Your task to perform on an android device: Show me productivity apps on the Play Store Image 0: 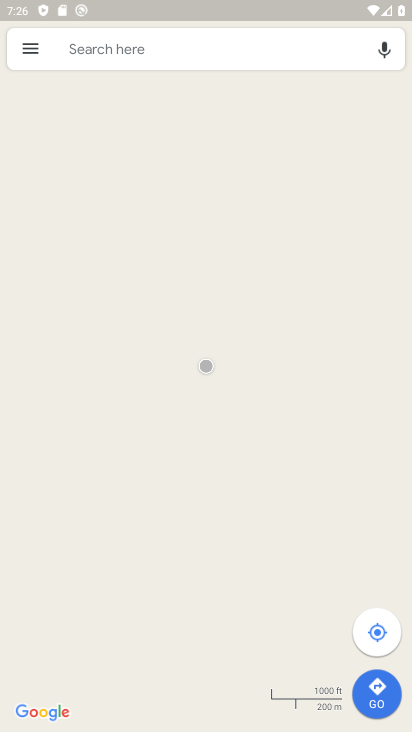
Step 0: press home button
Your task to perform on an android device: Show me productivity apps on the Play Store Image 1: 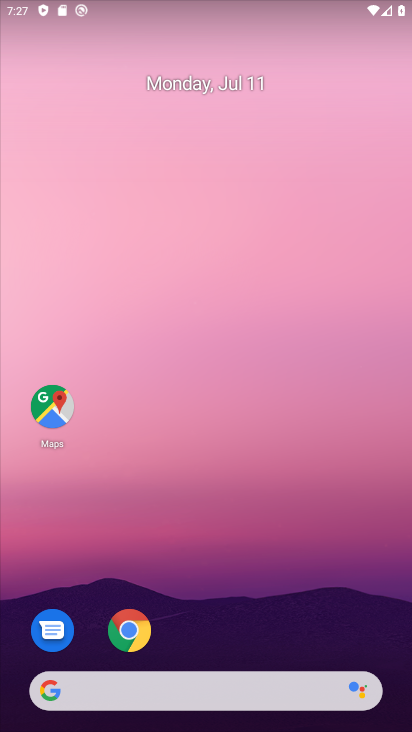
Step 1: drag from (186, 684) to (317, 390)
Your task to perform on an android device: Show me productivity apps on the Play Store Image 2: 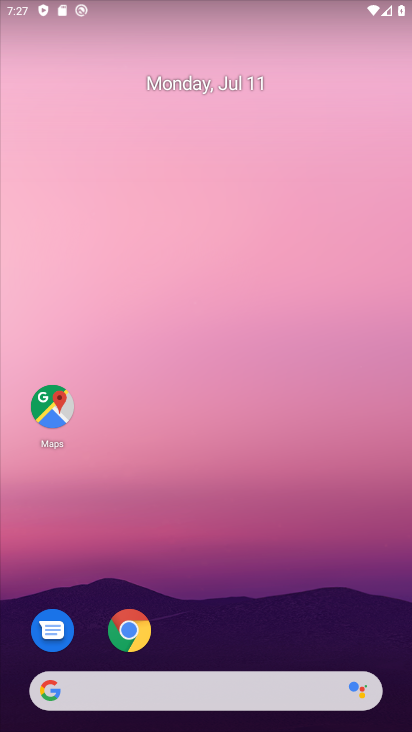
Step 2: drag from (149, 686) to (248, 276)
Your task to perform on an android device: Show me productivity apps on the Play Store Image 3: 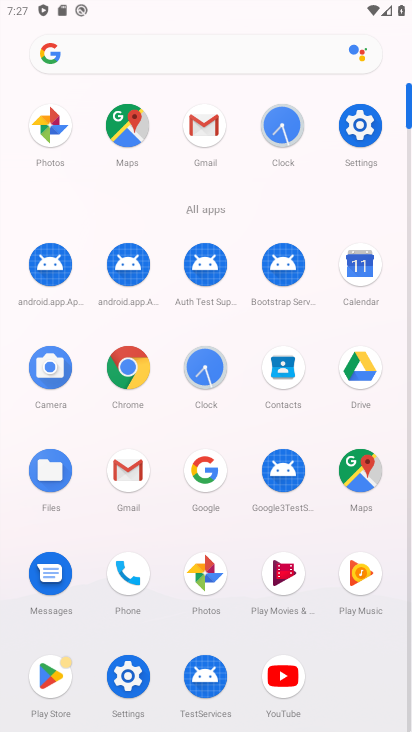
Step 3: click (58, 672)
Your task to perform on an android device: Show me productivity apps on the Play Store Image 4: 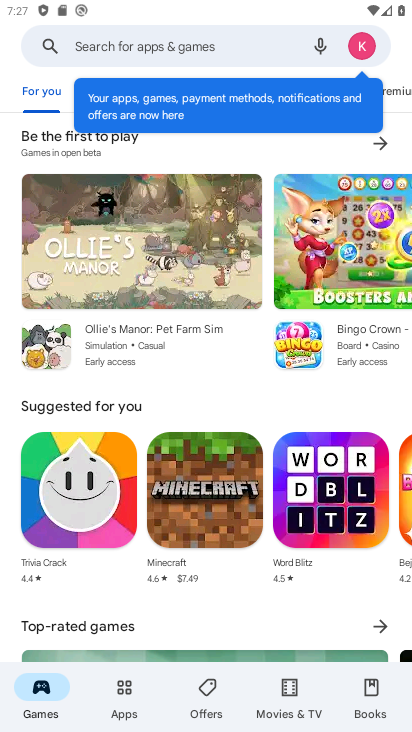
Step 4: click (119, 690)
Your task to perform on an android device: Show me productivity apps on the Play Store Image 5: 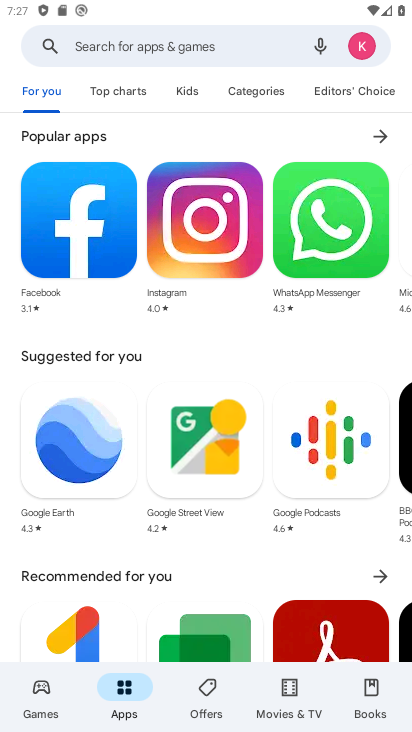
Step 5: click (262, 90)
Your task to perform on an android device: Show me productivity apps on the Play Store Image 6: 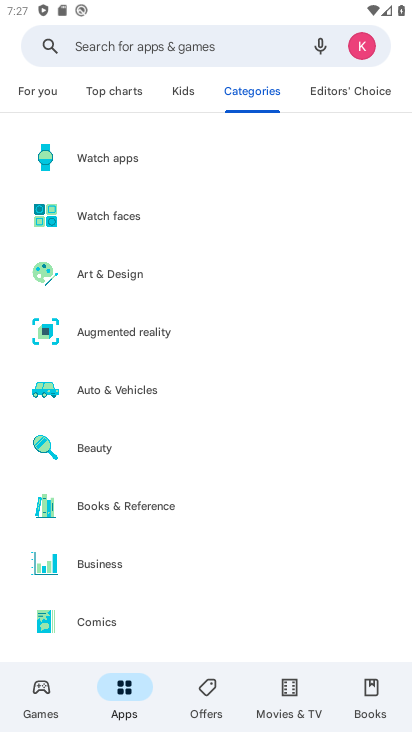
Step 6: drag from (202, 550) to (287, 120)
Your task to perform on an android device: Show me productivity apps on the Play Store Image 7: 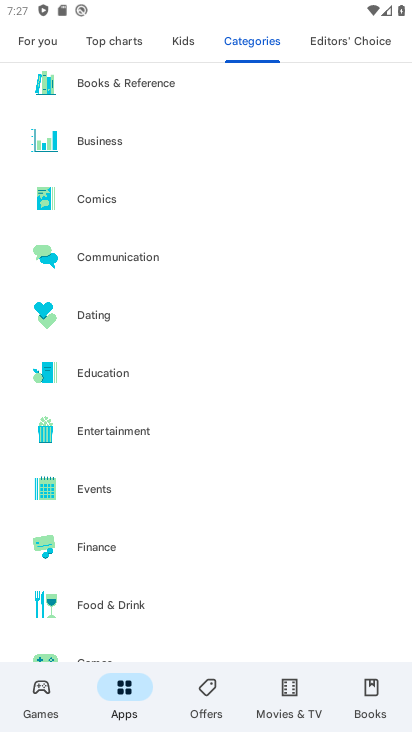
Step 7: drag from (222, 536) to (326, 155)
Your task to perform on an android device: Show me productivity apps on the Play Store Image 8: 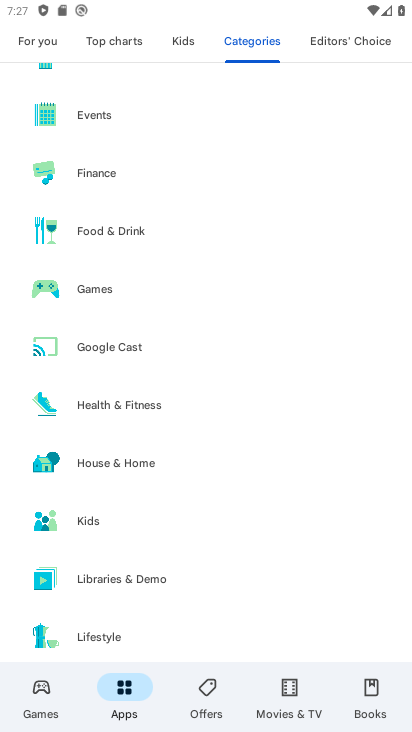
Step 8: drag from (210, 589) to (209, 159)
Your task to perform on an android device: Show me productivity apps on the Play Store Image 9: 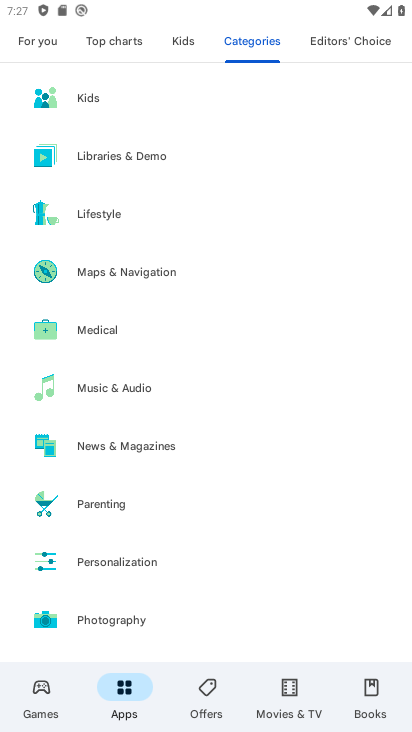
Step 9: drag from (191, 546) to (269, 283)
Your task to perform on an android device: Show me productivity apps on the Play Store Image 10: 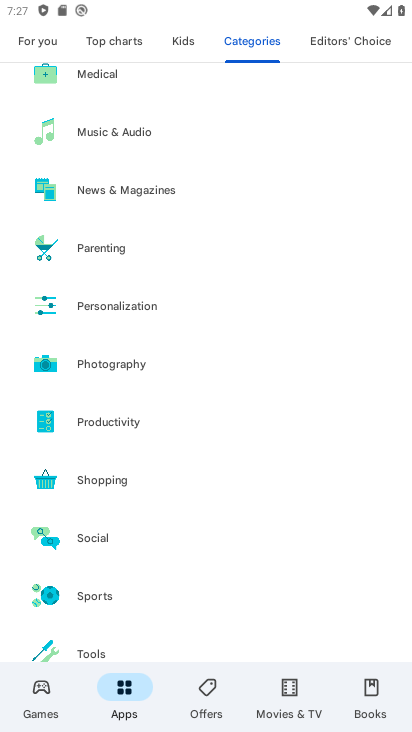
Step 10: click (129, 417)
Your task to perform on an android device: Show me productivity apps on the Play Store Image 11: 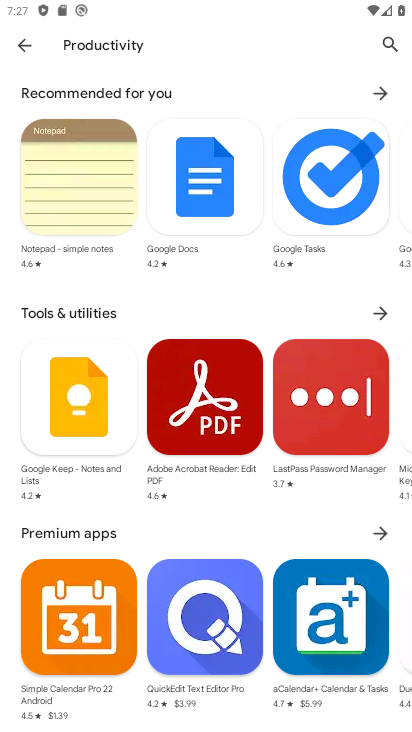
Step 11: task complete